Your task to perform on an android device: delete location history Image 0: 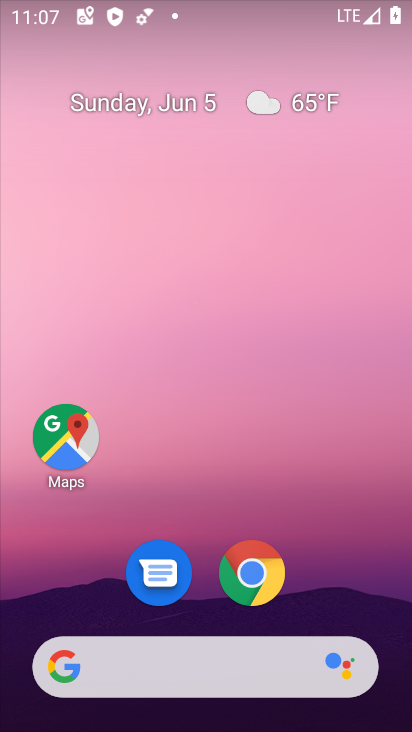
Step 0: drag from (204, 624) to (255, 181)
Your task to perform on an android device: delete location history Image 1: 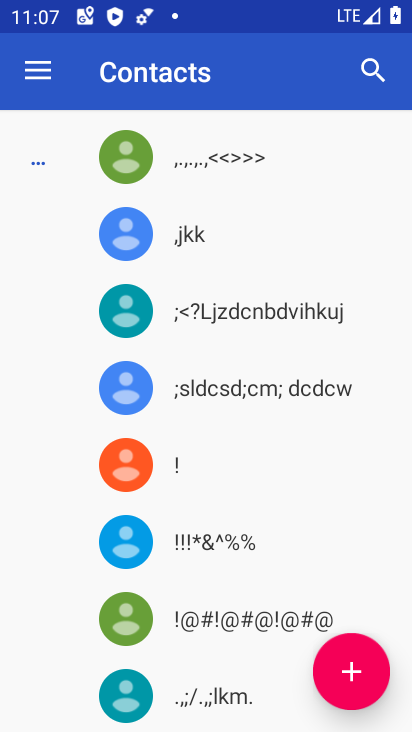
Step 1: press home button
Your task to perform on an android device: delete location history Image 2: 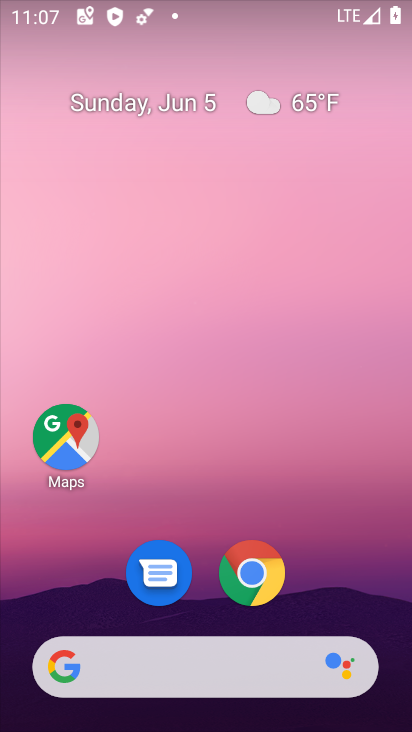
Step 2: drag from (213, 592) to (264, 208)
Your task to perform on an android device: delete location history Image 3: 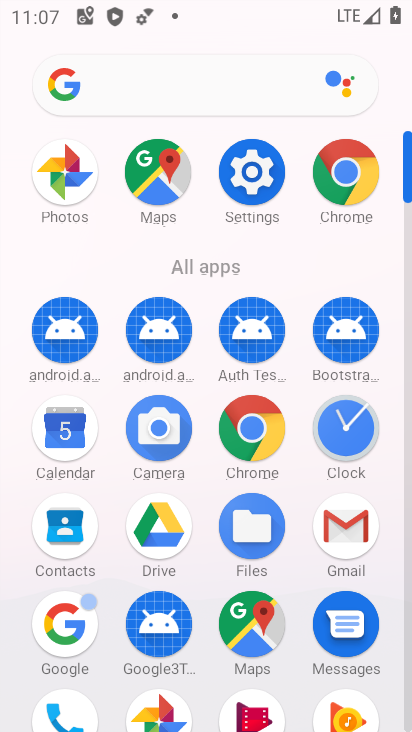
Step 3: drag from (202, 288) to (231, 83)
Your task to perform on an android device: delete location history Image 4: 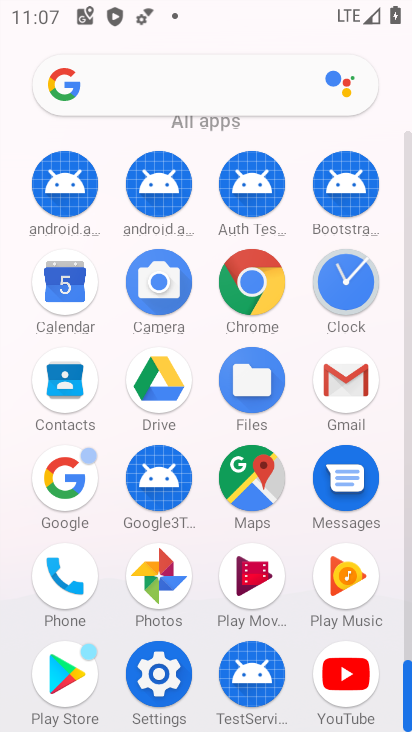
Step 4: click (175, 672)
Your task to perform on an android device: delete location history Image 5: 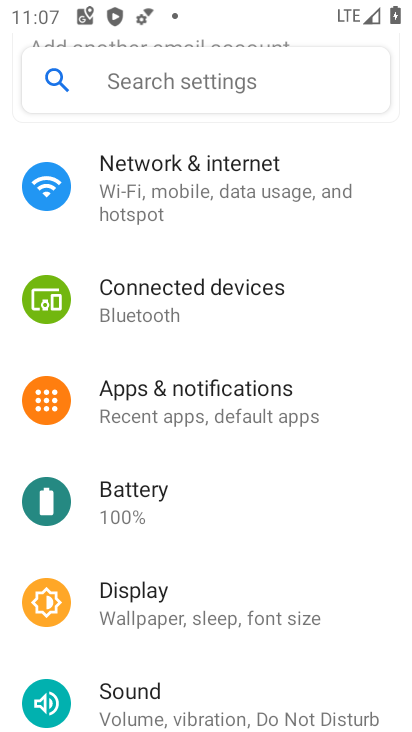
Step 5: drag from (207, 640) to (283, 226)
Your task to perform on an android device: delete location history Image 6: 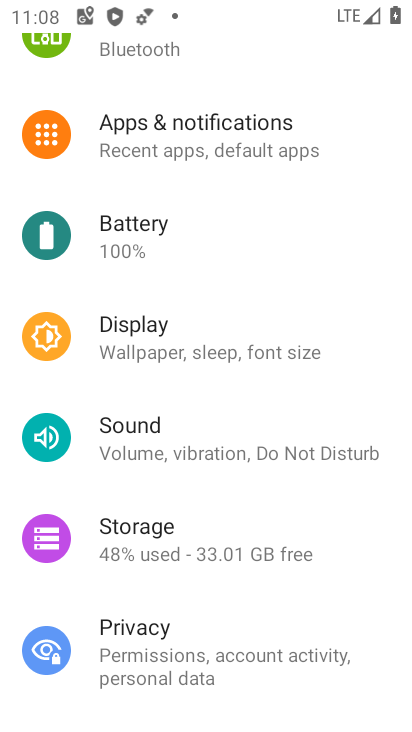
Step 6: drag from (208, 553) to (289, 202)
Your task to perform on an android device: delete location history Image 7: 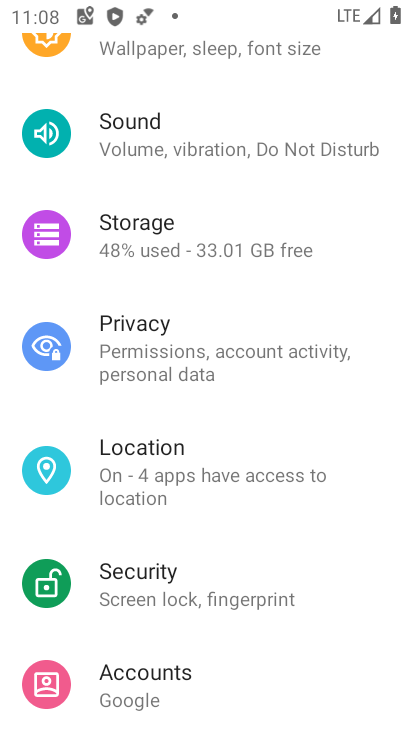
Step 7: click (192, 489)
Your task to perform on an android device: delete location history Image 8: 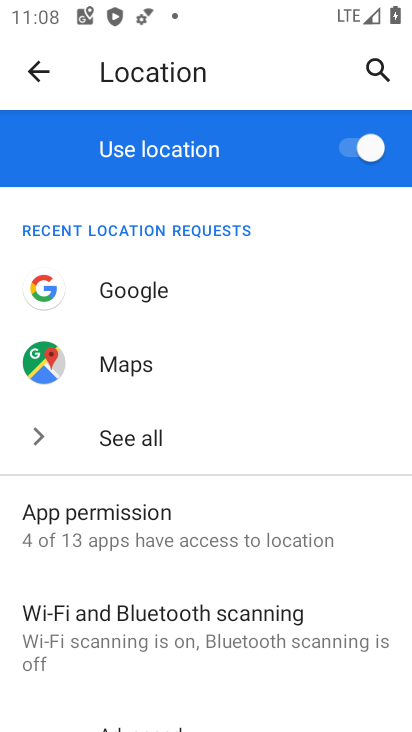
Step 8: drag from (247, 577) to (265, 165)
Your task to perform on an android device: delete location history Image 9: 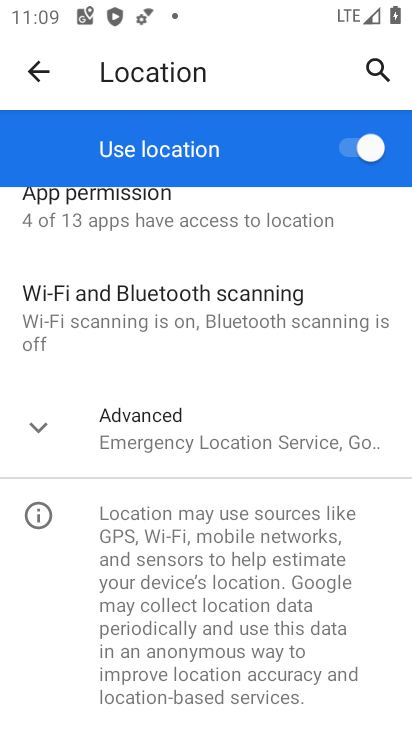
Step 9: click (135, 448)
Your task to perform on an android device: delete location history Image 10: 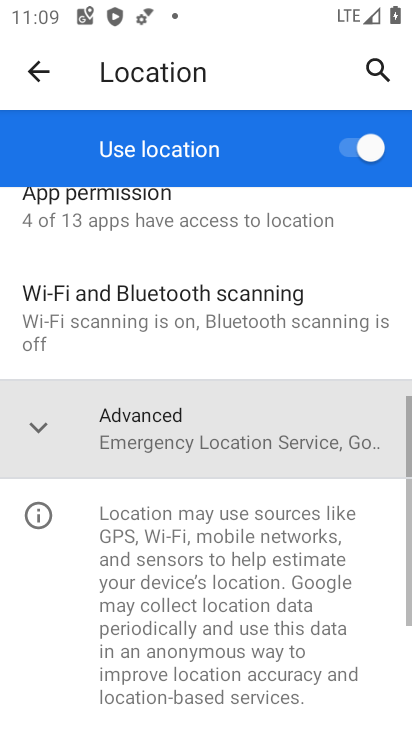
Step 10: drag from (167, 425) to (246, 105)
Your task to perform on an android device: delete location history Image 11: 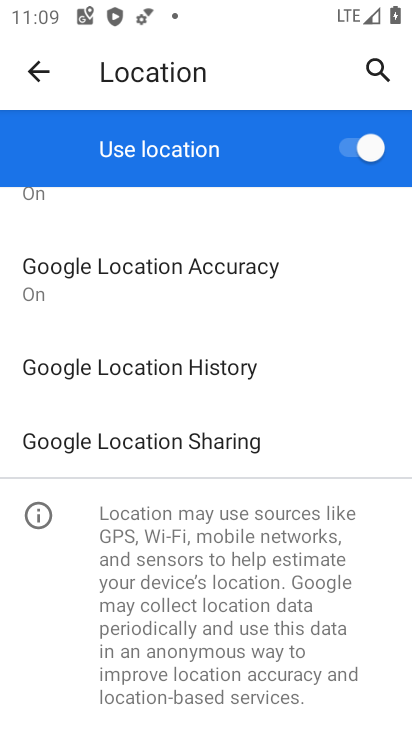
Step 11: click (215, 369)
Your task to perform on an android device: delete location history Image 12: 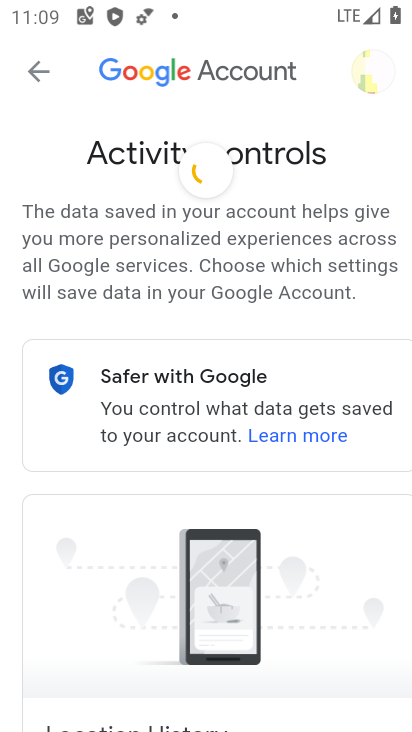
Step 12: drag from (249, 498) to (315, 4)
Your task to perform on an android device: delete location history Image 13: 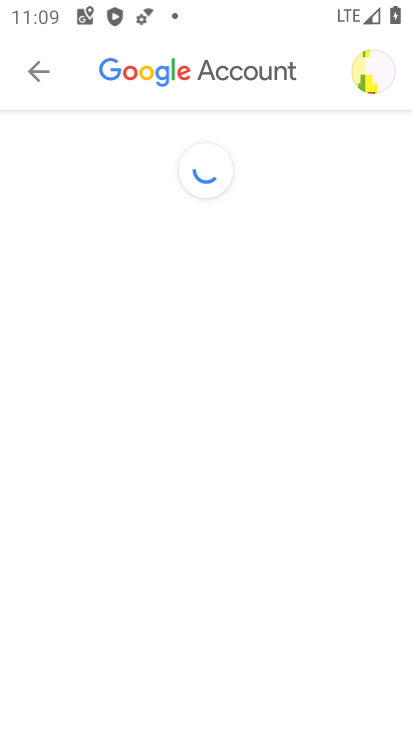
Step 13: drag from (319, 633) to (303, 264)
Your task to perform on an android device: delete location history Image 14: 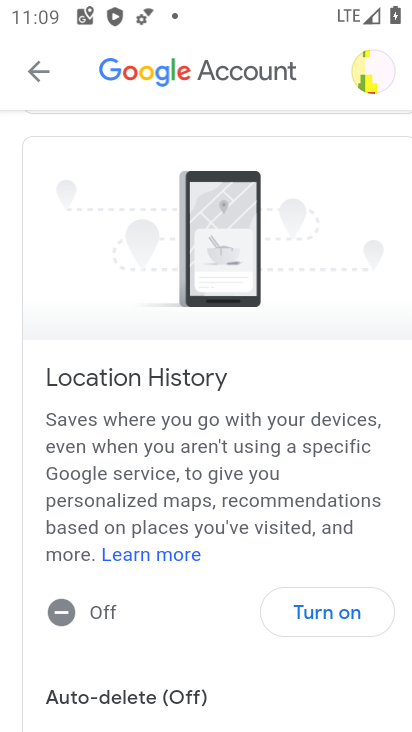
Step 14: drag from (290, 531) to (281, 123)
Your task to perform on an android device: delete location history Image 15: 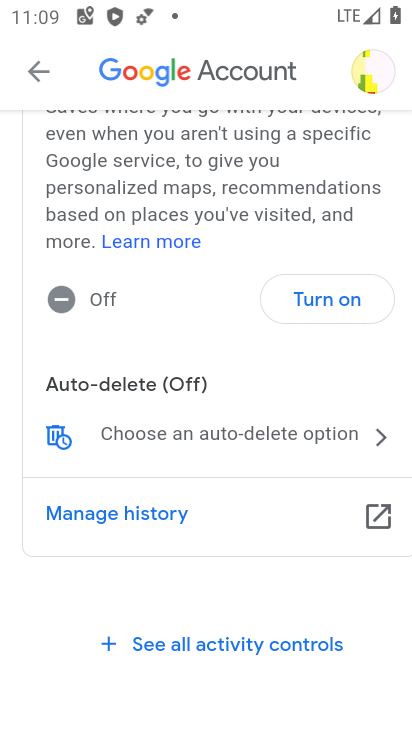
Step 15: click (359, 447)
Your task to perform on an android device: delete location history Image 16: 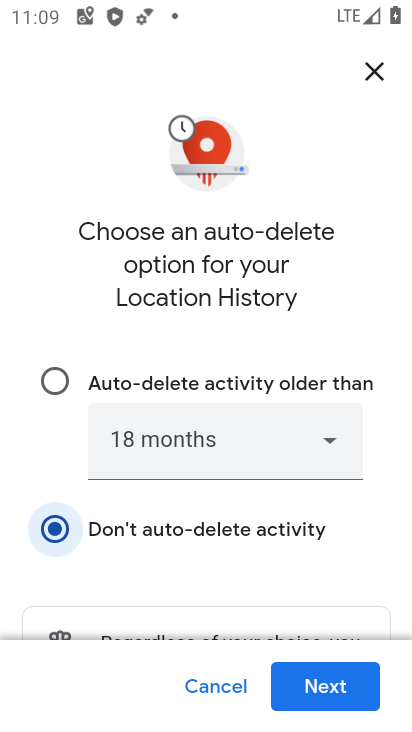
Step 16: drag from (286, 557) to (286, 66)
Your task to perform on an android device: delete location history Image 17: 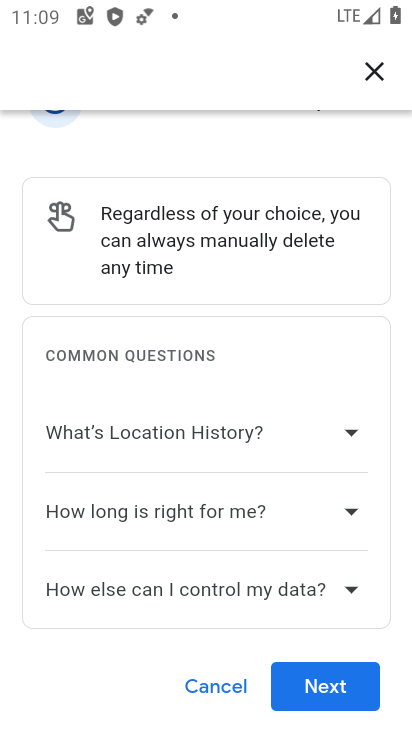
Step 17: drag from (295, 360) to (308, 548)
Your task to perform on an android device: delete location history Image 18: 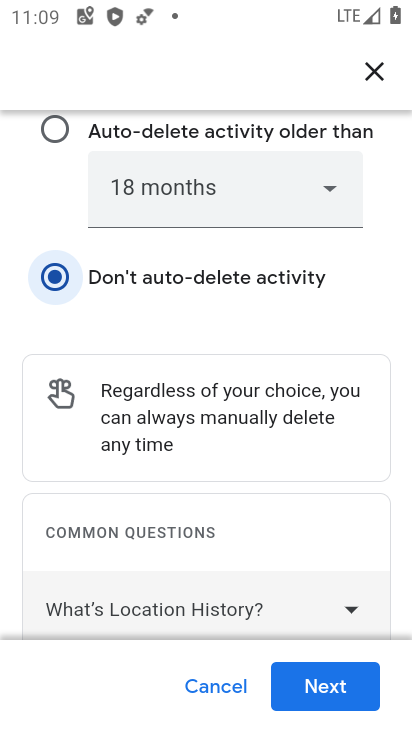
Step 18: click (294, 202)
Your task to perform on an android device: delete location history Image 19: 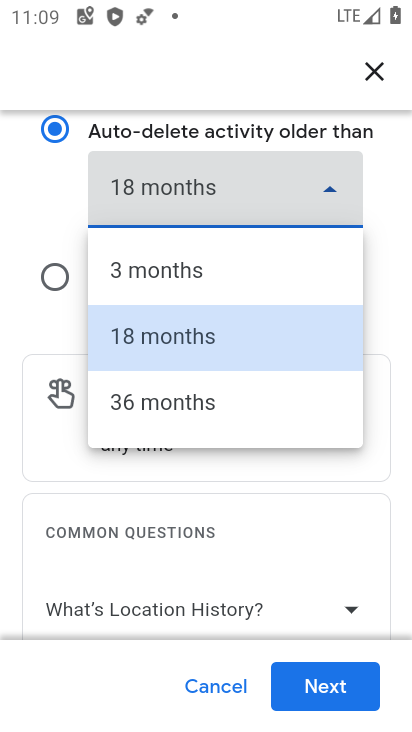
Step 19: click (187, 258)
Your task to perform on an android device: delete location history Image 20: 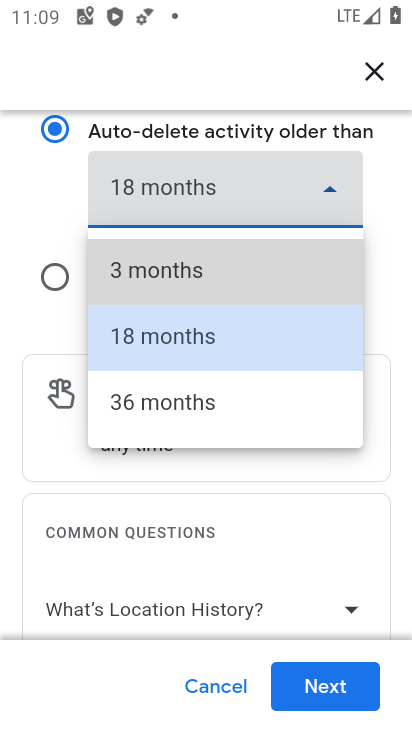
Step 20: click (332, 691)
Your task to perform on an android device: delete location history Image 21: 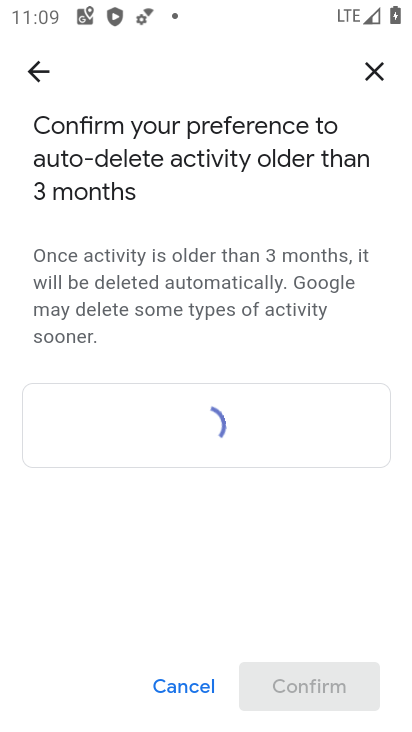
Step 21: click (337, 690)
Your task to perform on an android device: delete location history Image 22: 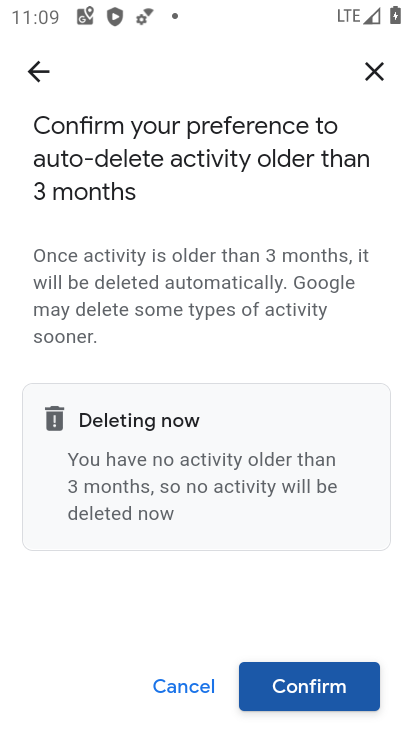
Step 22: click (324, 691)
Your task to perform on an android device: delete location history Image 23: 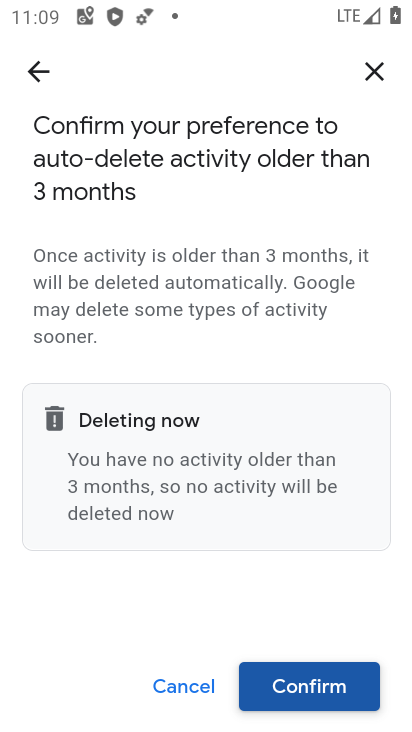
Step 23: click (319, 685)
Your task to perform on an android device: delete location history Image 24: 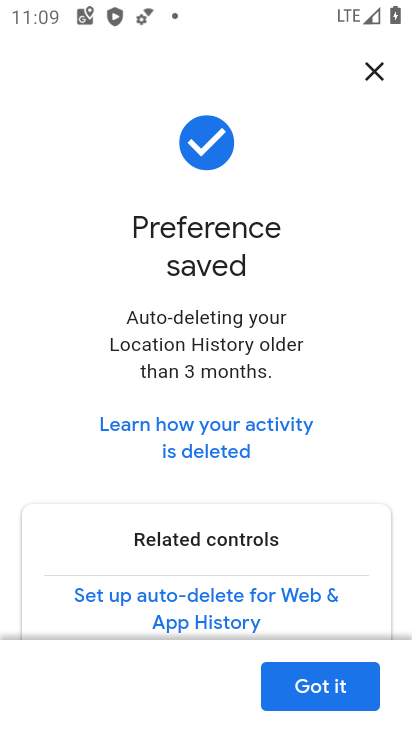
Step 24: click (327, 693)
Your task to perform on an android device: delete location history Image 25: 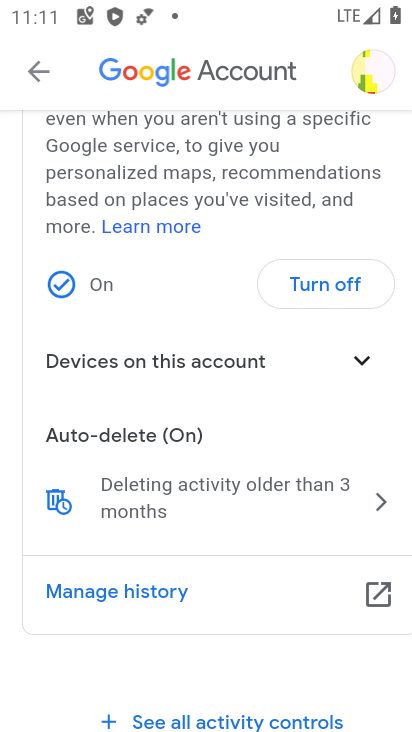
Step 25: task complete